Your task to perform on an android device: see tabs open on other devices in the chrome app Image 0: 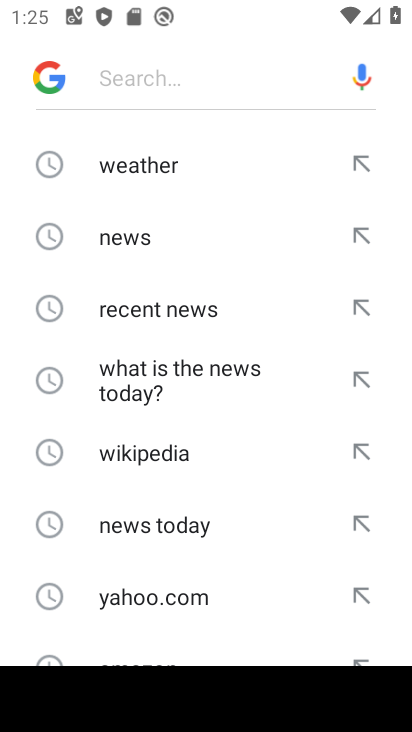
Step 0: press home button
Your task to perform on an android device: see tabs open on other devices in the chrome app Image 1: 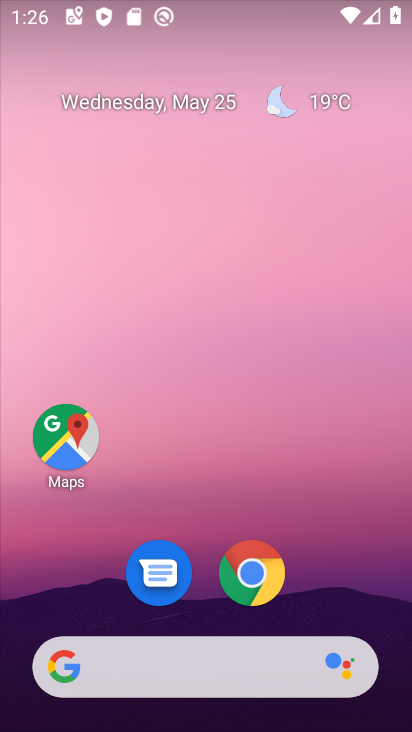
Step 1: click (254, 571)
Your task to perform on an android device: see tabs open on other devices in the chrome app Image 2: 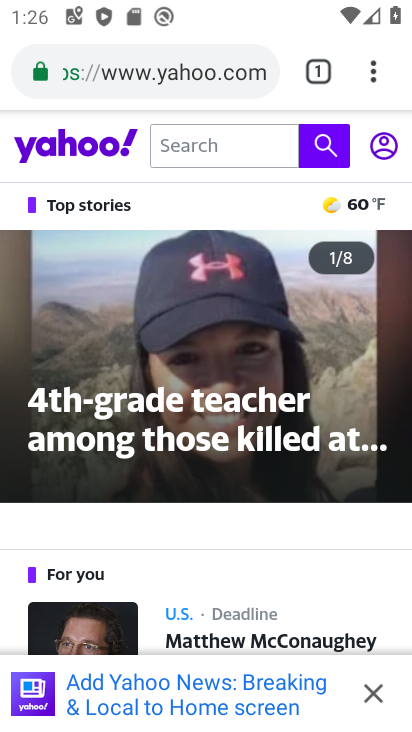
Step 2: click (373, 78)
Your task to perform on an android device: see tabs open on other devices in the chrome app Image 3: 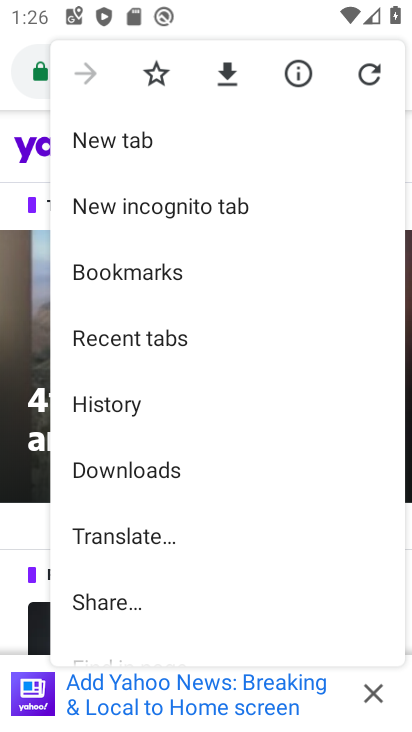
Step 3: click (195, 563)
Your task to perform on an android device: see tabs open on other devices in the chrome app Image 4: 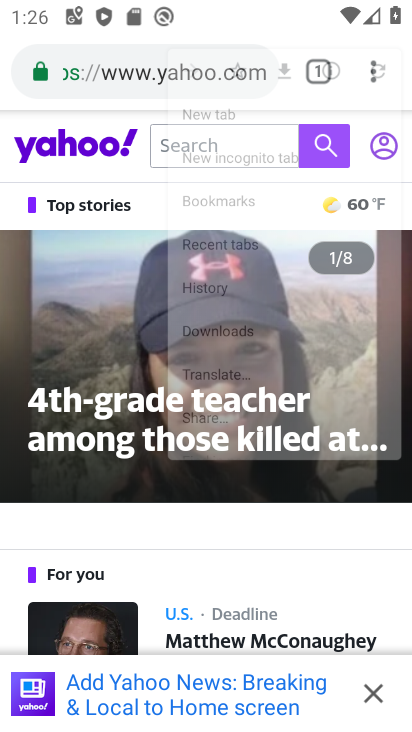
Step 4: drag from (195, 563) to (212, 480)
Your task to perform on an android device: see tabs open on other devices in the chrome app Image 5: 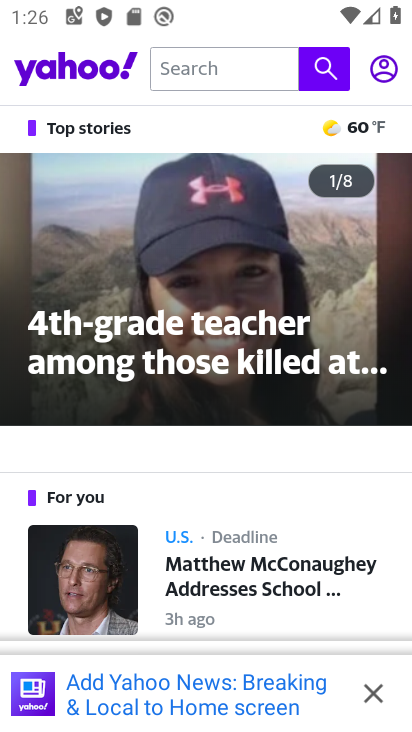
Step 5: drag from (375, 132) to (343, 445)
Your task to perform on an android device: see tabs open on other devices in the chrome app Image 6: 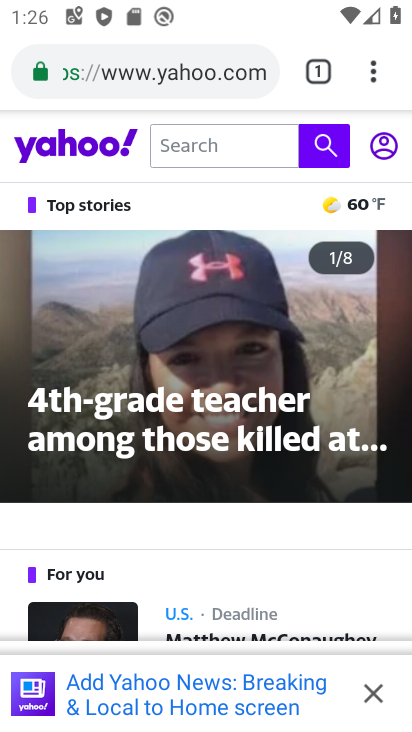
Step 6: click (373, 78)
Your task to perform on an android device: see tabs open on other devices in the chrome app Image 7: 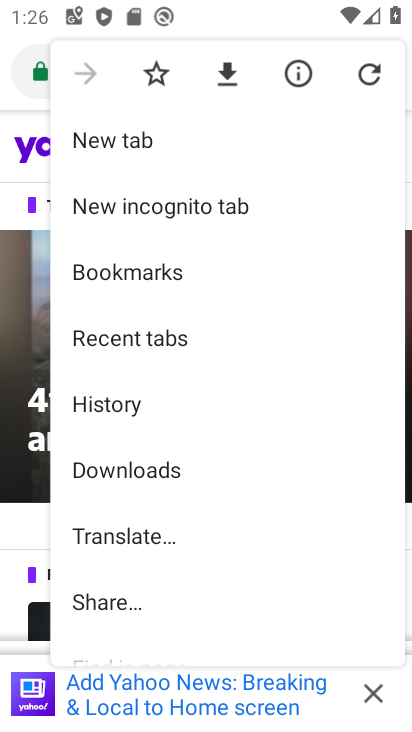
Step 7: click (124, 333)
Your task to perform on an android device: see tabs open on other devices in the chrome app Image 8: 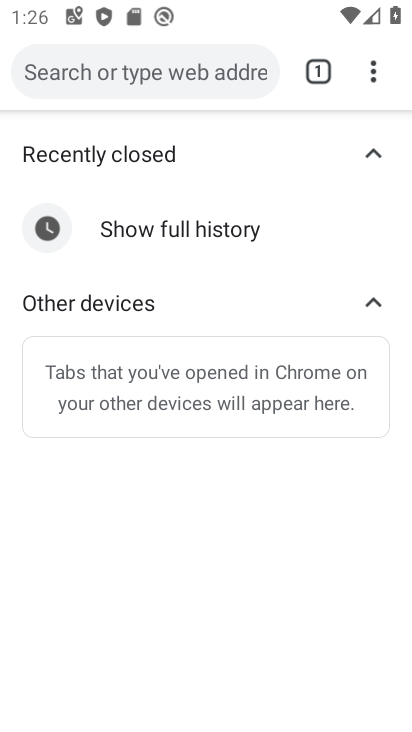
Step 8: task complete